Your task to perform on an android device: change alarm snooze length Image 0: 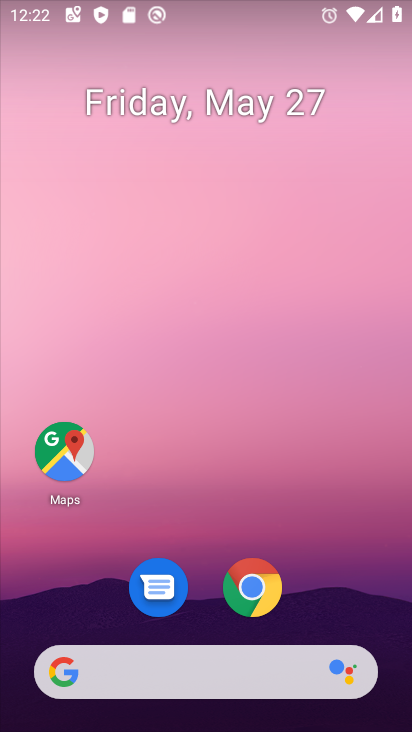
Step 0: drag from (214, 699) to (197, 254)
Your task to perform on an android device: change alarm snooze length Image 1: 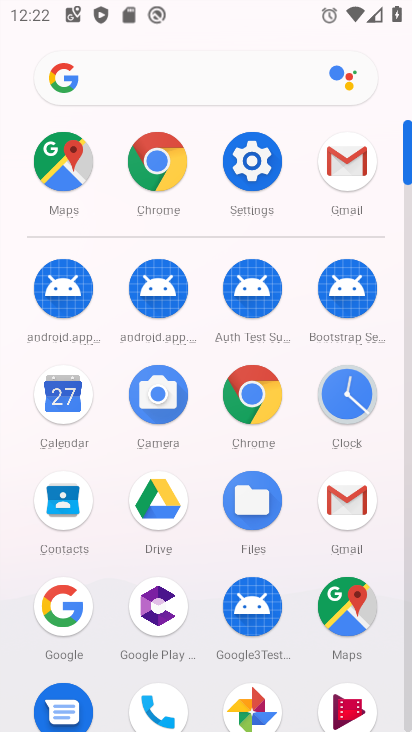
Step 1: click (336, 398)
Your task to perform on an android device: change alarm snooze length Image 2: 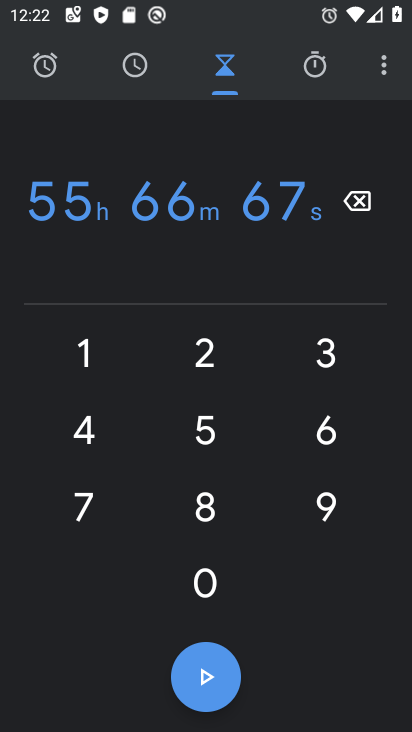
Step 2: click (396, 55)
Your task to perform on an android device: change alarm snooze length Image 3: 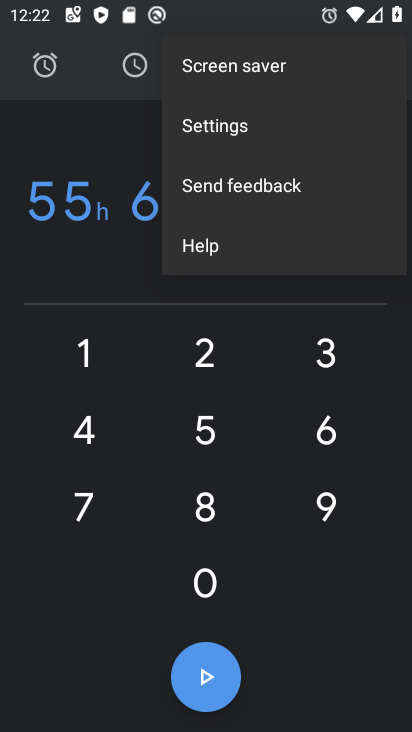
Step 3: click (227, 134)
Your task to perform on an android device: change alarm snooze length Image 4: 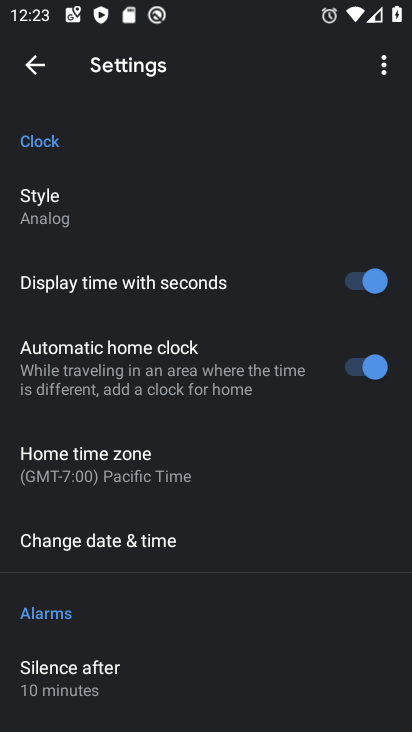
Step 4: drag from (192, 509) to (246, 108)
Your task to perform on an android device: change alarm snooze length Image 5: 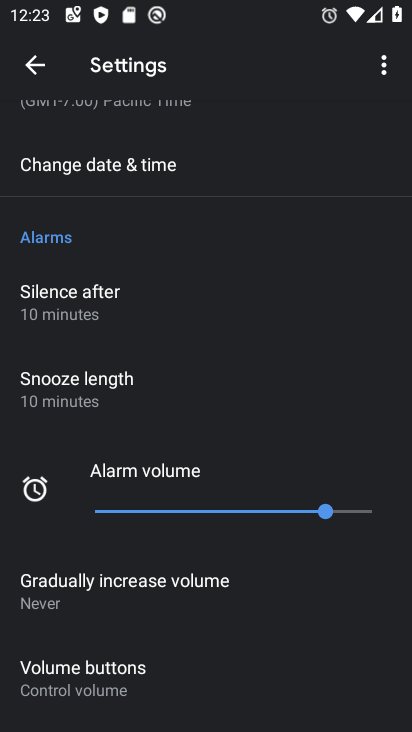
Step 5: click (132, 388)
Your task to perform on an android device: change alarm snooze length Image 6: 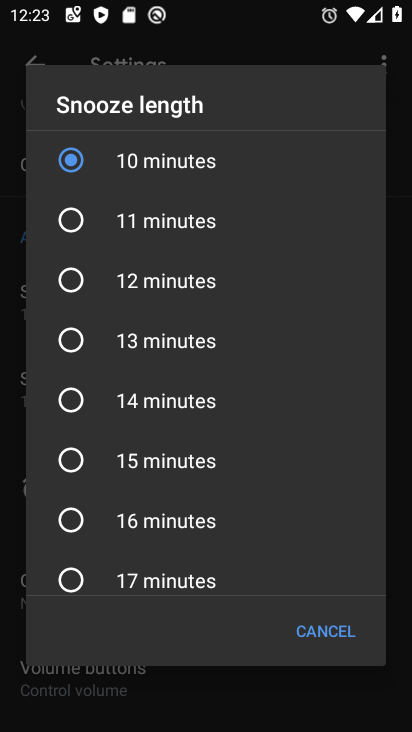
Step 6: click (148, 524)
Your task to perform on an android device: change alarm snooze length Image 7: 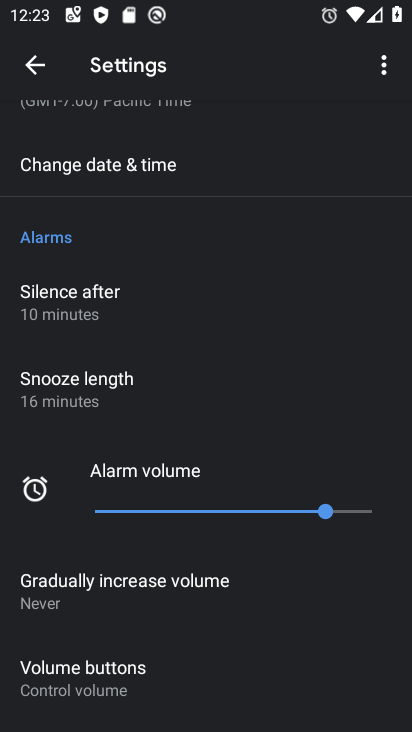
Step 7: task complete